Your task to perform on an android device: open app "Expedia: Hotels, Flights & Car" Image 0: 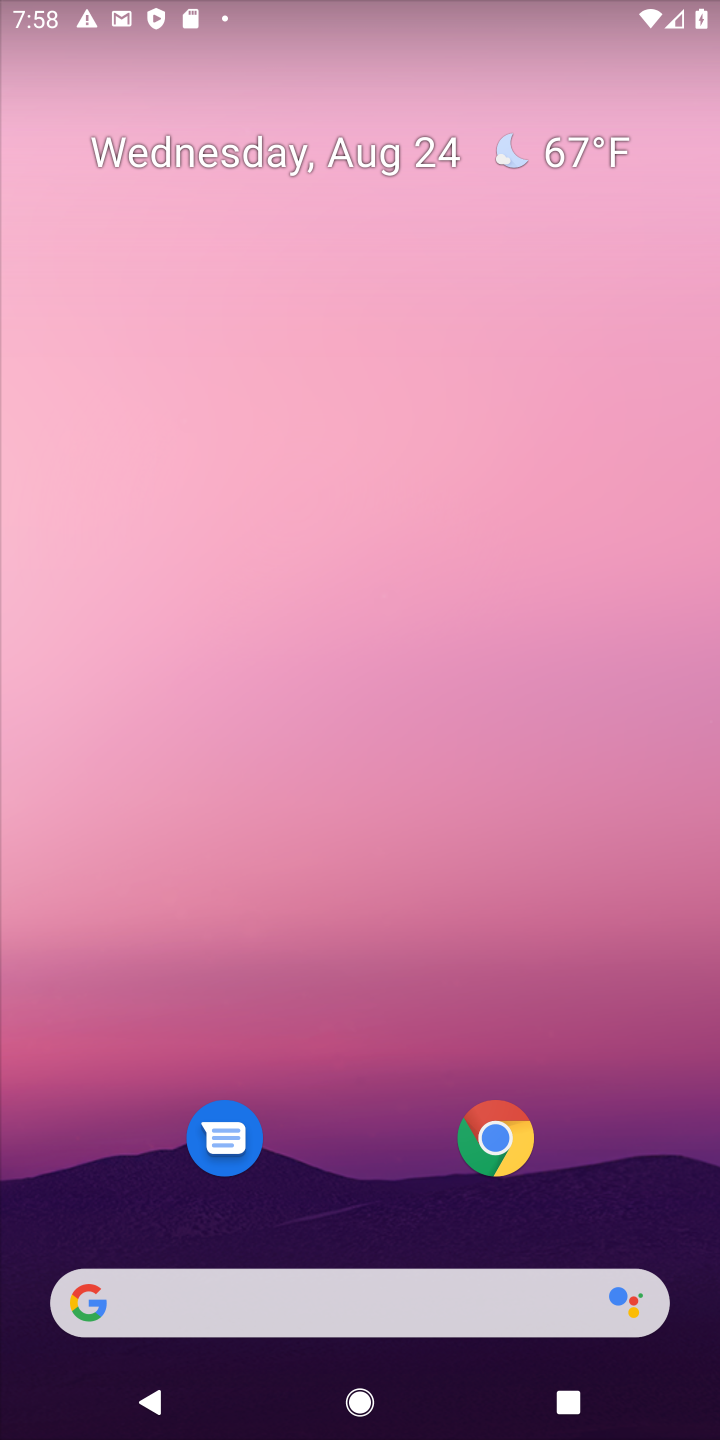
Step 0: drag from (357, 1183) to (131, 93)
Your task to perform on an android device: open app "Expedia: Hotels, Flights & Car" Image 1: 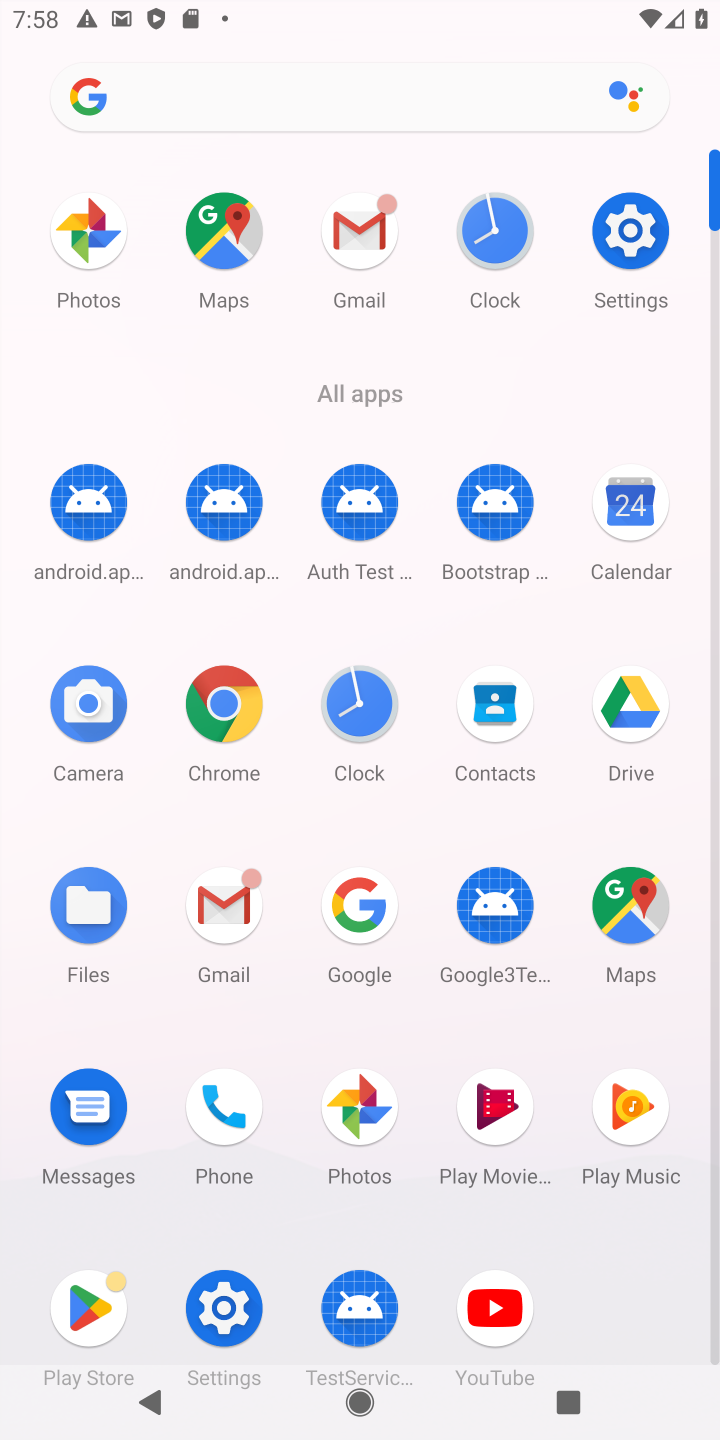
Step 1: click (72, 1315)
Your task to perform on an android device: open app "Expedia: Hotels, Flights & Car" Image 2: 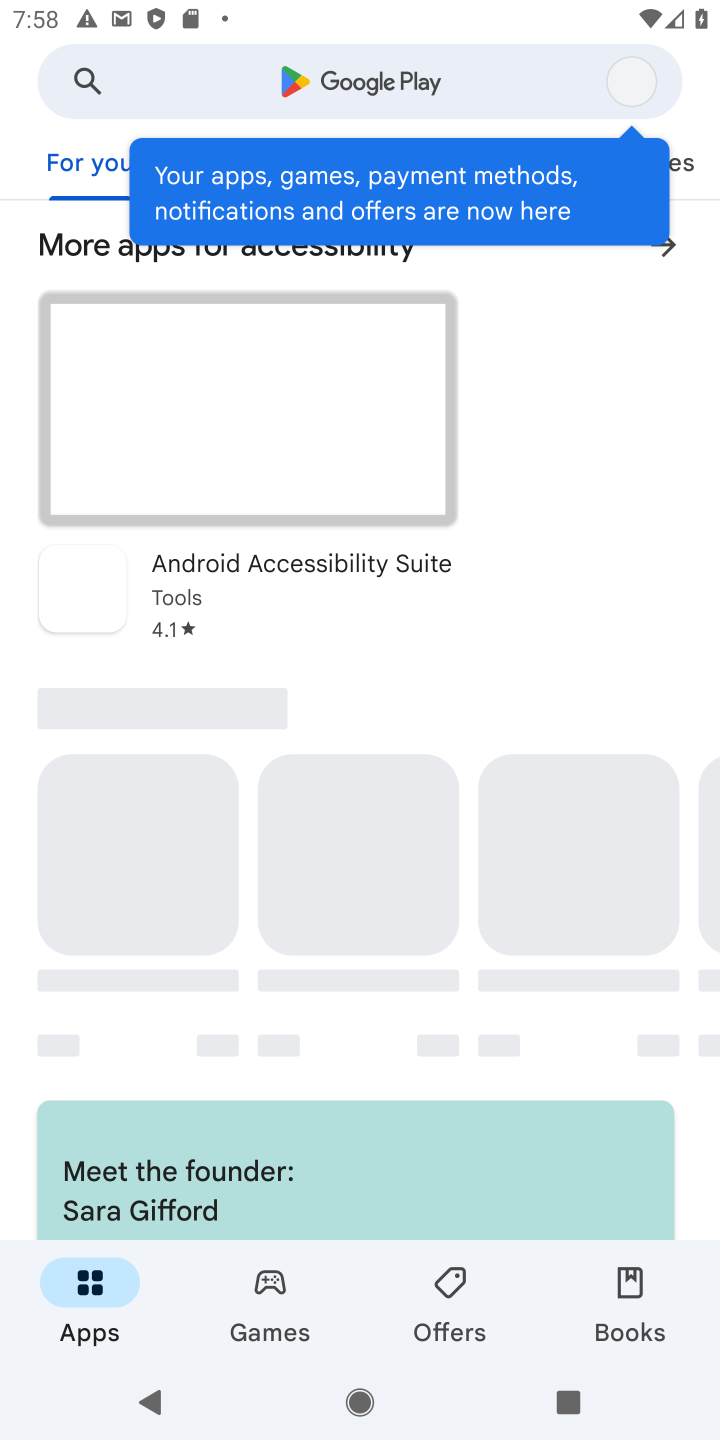
Step 2: click (320, 87)
Your task to perform on an android device: open app "Expedia: Hotels, Flights & Car" Image 3: 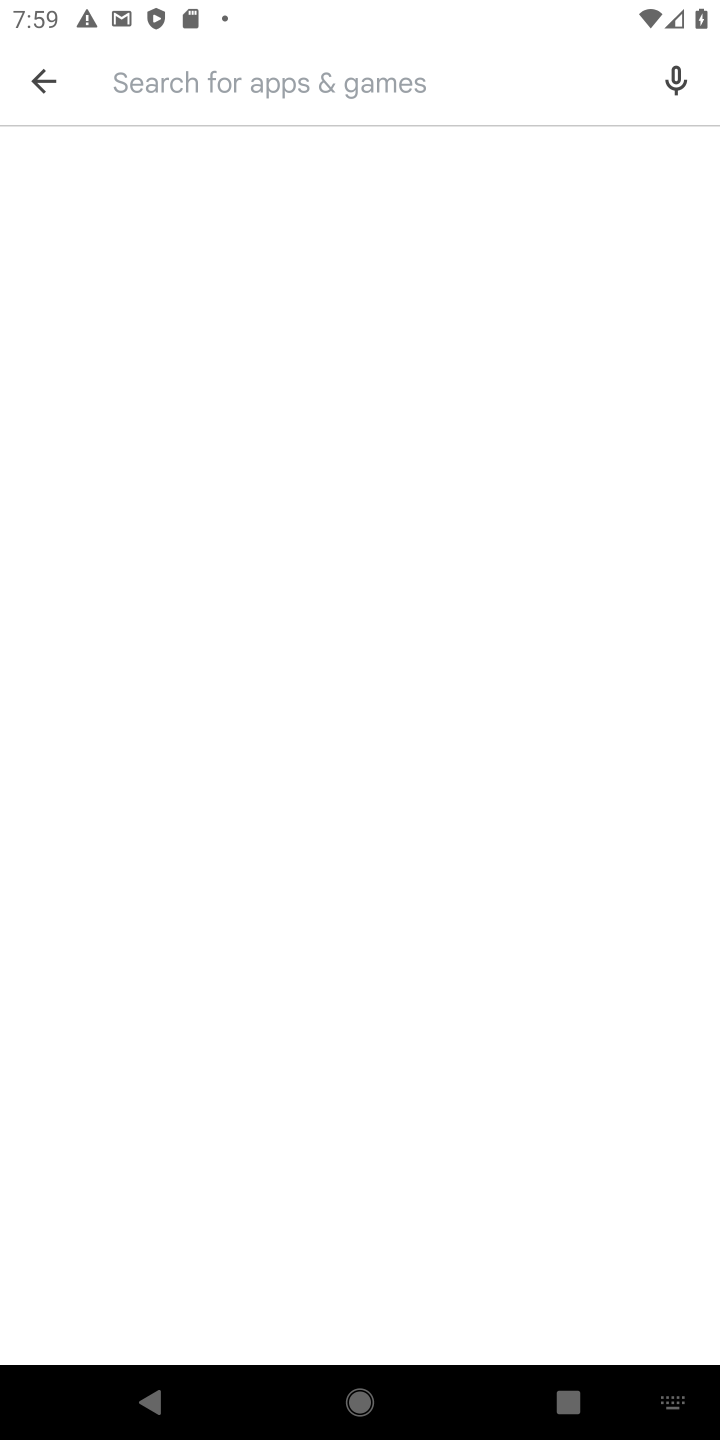
Step 3: type "Expedia: Hotels, Flights & Car"
Your task to perform on an android device: open app "Expedia: Hotels, Flights & Car" Image 4: 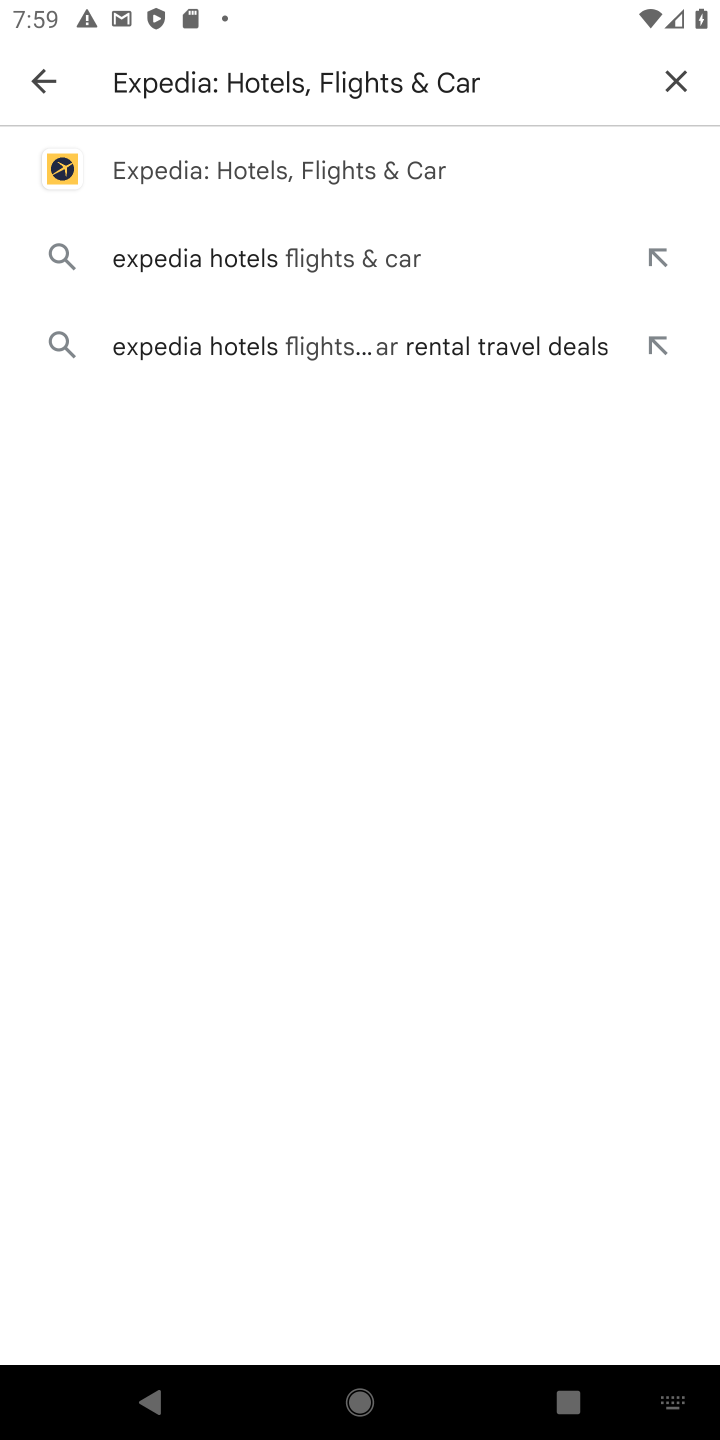
Step 4: click (334, 183)
Your task to perform on an android device: open app "Expedia: Hotels, Flights & Car" Image 5: 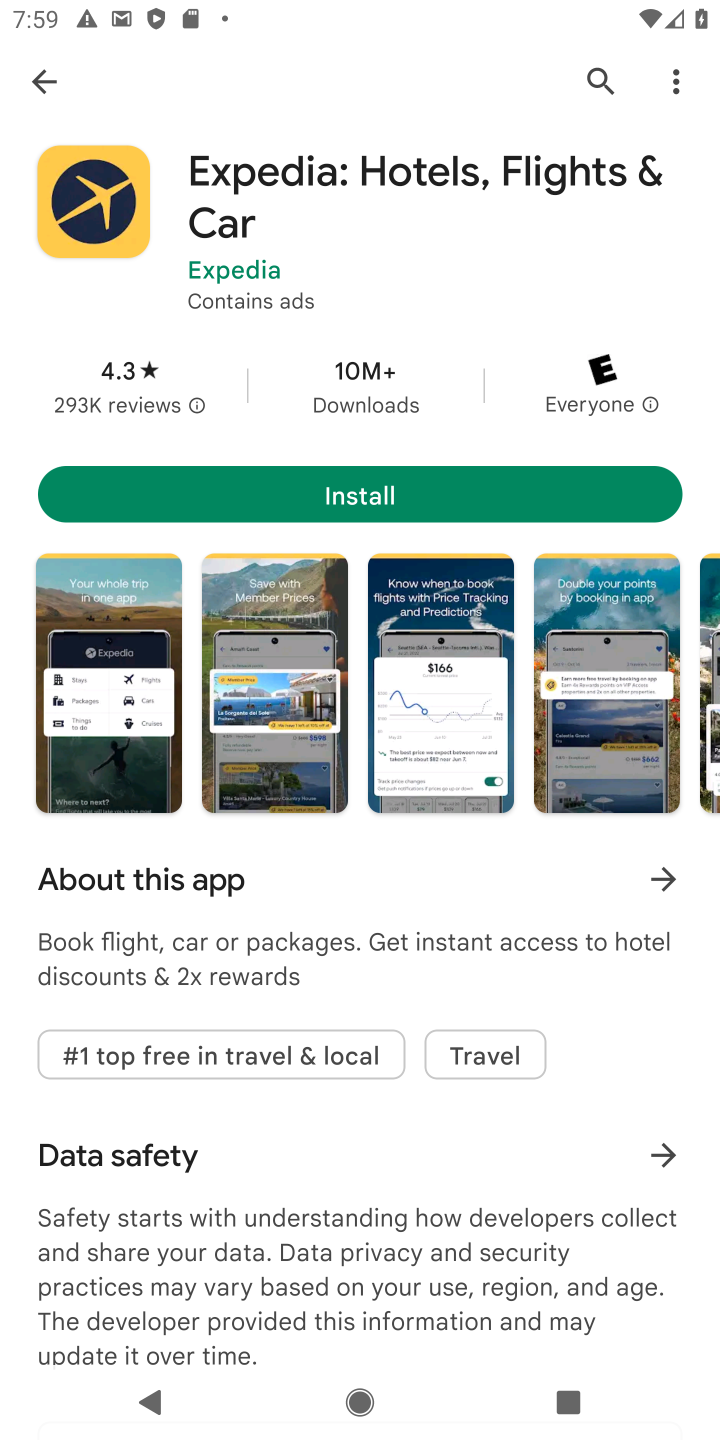
Step 5: task complete